Your task to perform on an android device: Open Google Chrome and click the shortcut for Amazon.com Image 0: 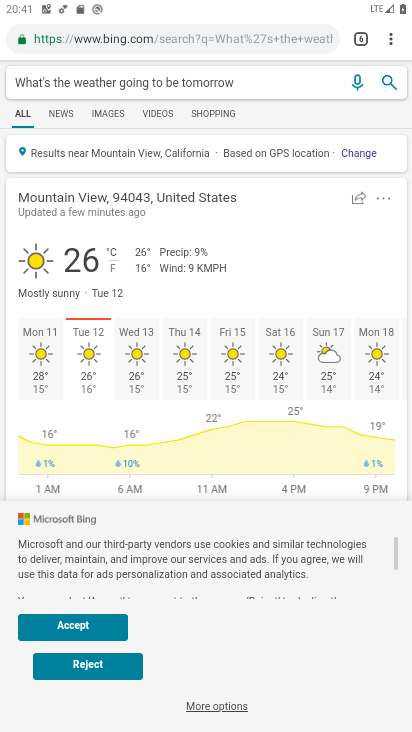
Step 0: press home button
Your task to perform on an android device: Open Google Chrome and click the shortcut for Amazon.com Image 1: 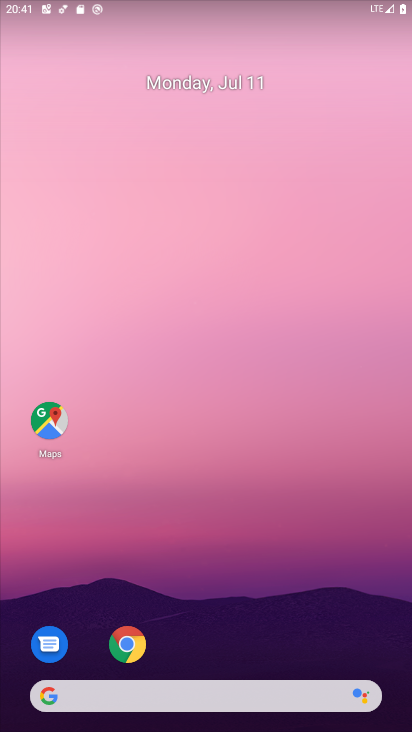
Step 1: drag from (245, 672) to (206, 133)
Your task to perform on an android device: Open Google Chrome and click the shortcut for Amazon.com Image 2: 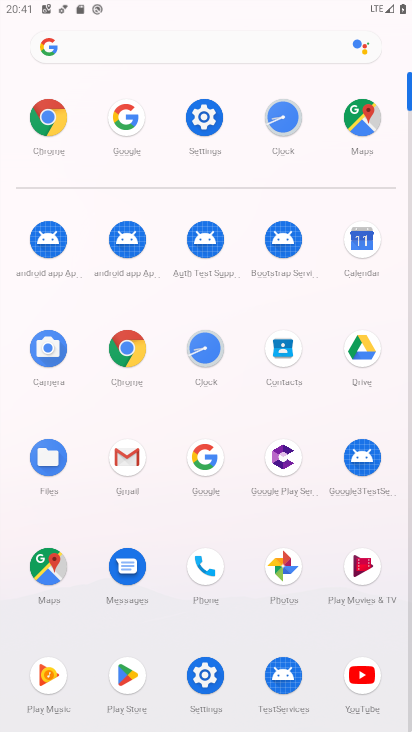
Step 2: click (119, 341)
Your task to perform on an android device: Open Google Chrome and click the shortcut for Amazon.com Image 3: 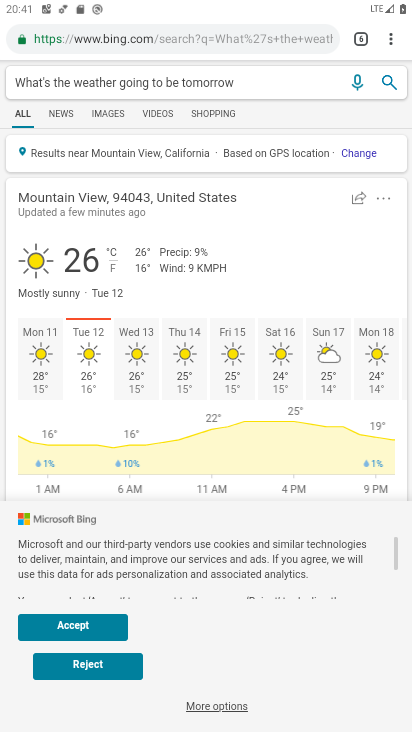
Step 3: click (390, 33)
Your task to perform on an android device: Open Google Chrome and click the shortcut for Amazon.com Image 4: 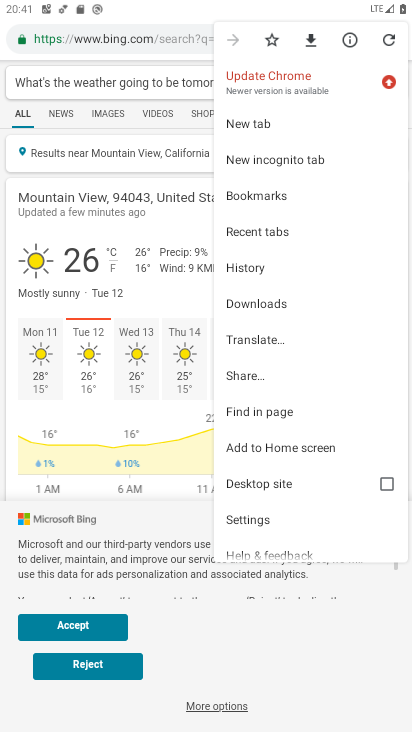
Step 4: click (269, 126)
Your task to perform on an android device: Open Google Chrome and click the shortcut for Amazon.com Image 5: 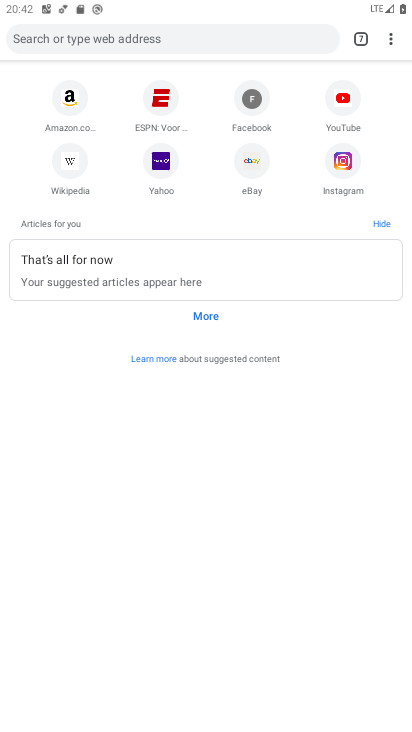
Step 5: click (69, 91)
Your task to perform on an android device: Open Google Chrome and click the shortcut for Amazon.com Image 6: 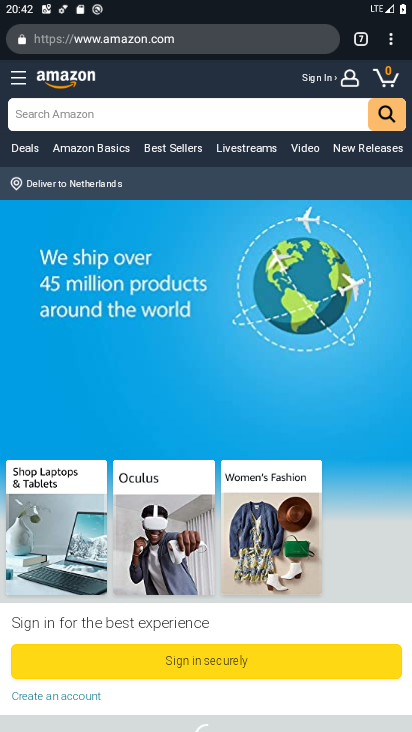
Step 6: task complete